Your task to perform on an android device: Open network settings Image 0: 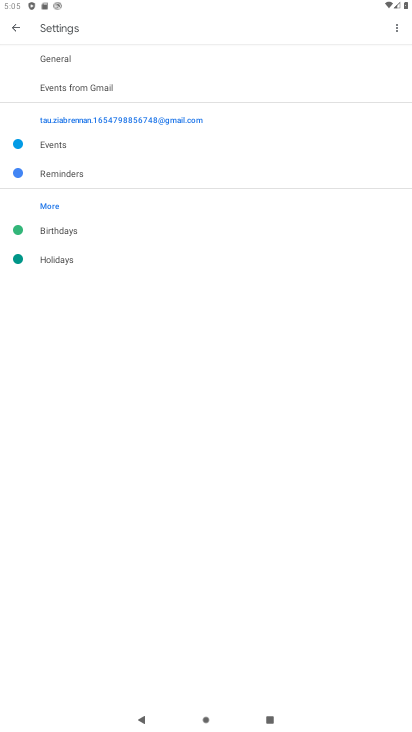
Step 0: press back button
Your task to perform on an android device: Open network settings Image 1: 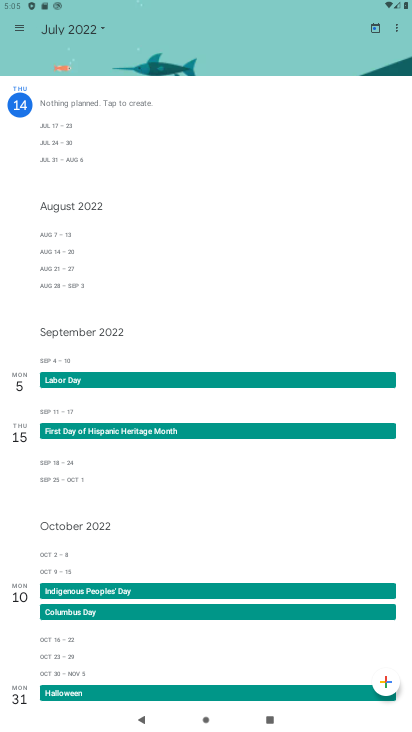
Step 1: press back button
Your task to perform on an android device: Open network settings Image 2: 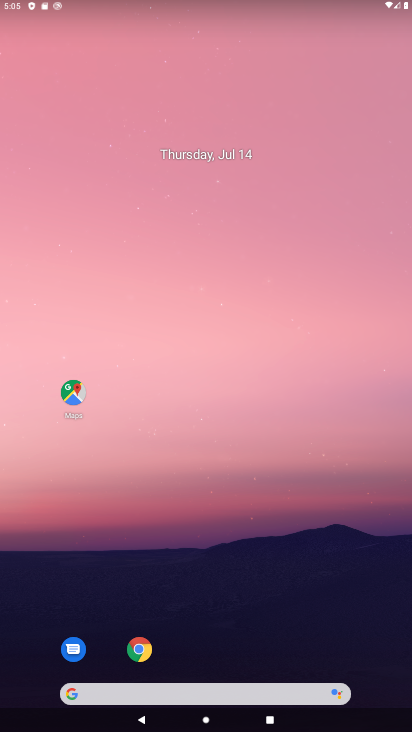
Step 2: drag from (245, 610) to (316, 2)
Your task to perform on an android device: Open network settings Image 3: 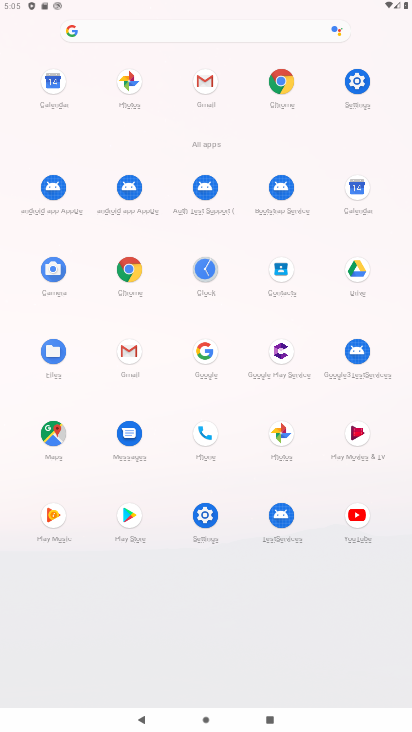
Step 3: click (351, 90)
Your task to perform on an android device: Open network settings Image 4: 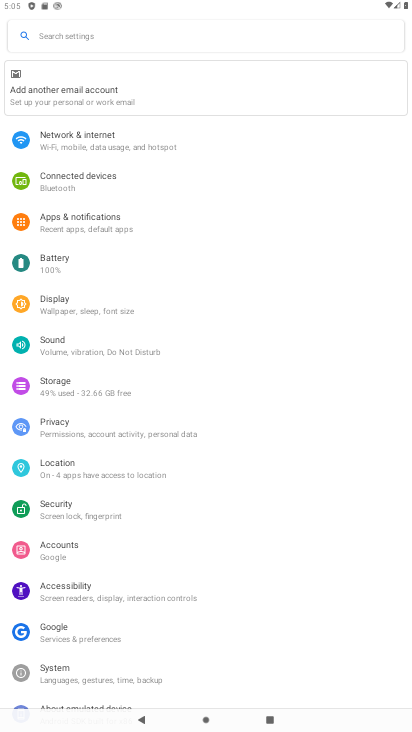
Step 4: click (73, 132)
Your task to perform on an android device: Open network settings Image 5: 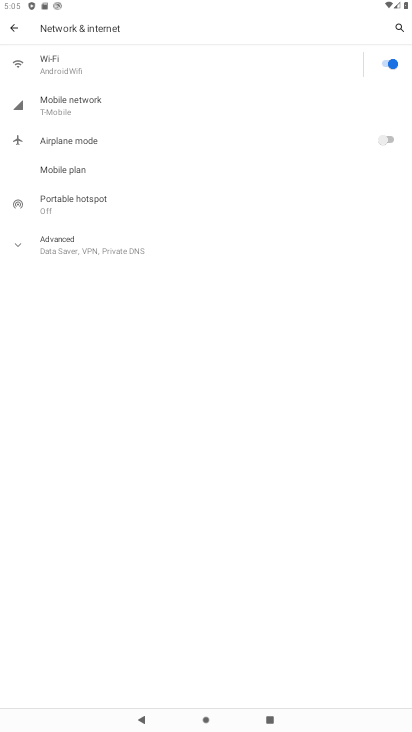
Step 5: task complete